Your task to perform on an android device: Open the phone app and click the voicemail tab. Image 0: 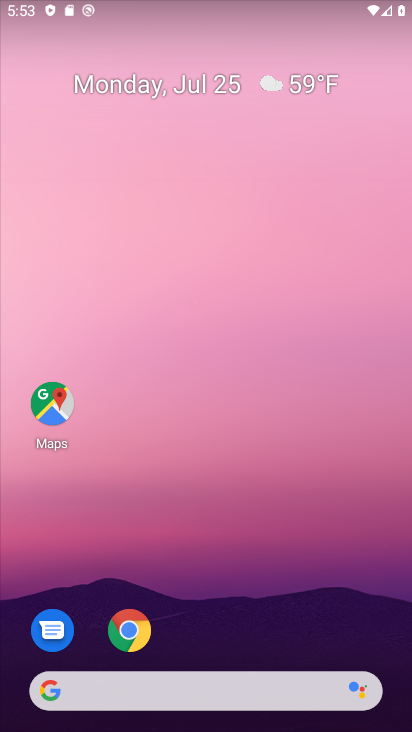
Step 0: drag from (171, 638) to (122, 19)
Your task to perform on an android device: Open the phone app and click the voicemail tab. Image 1: 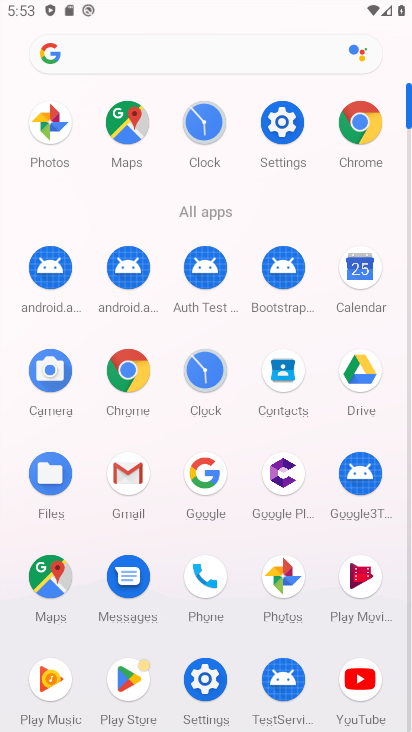
Step 1: click (203, 579)
Your task to perform on an android device: Open the phone app and click the voicemail tab. Image 2: 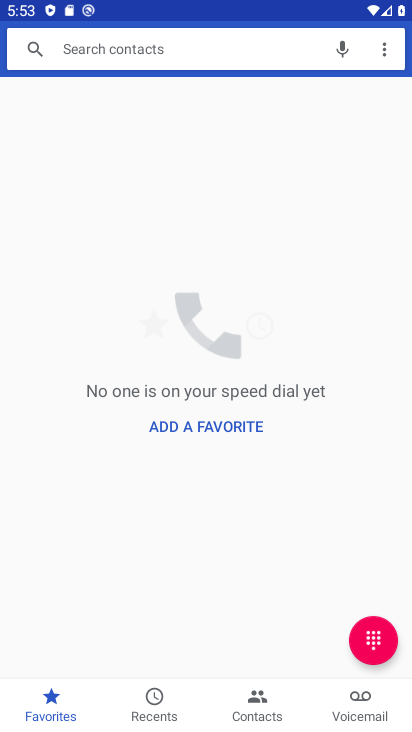
Step 2: click (356, 709)
Your task to perform on an android device: Open the phone app and click the voicemail tab. Image 3: 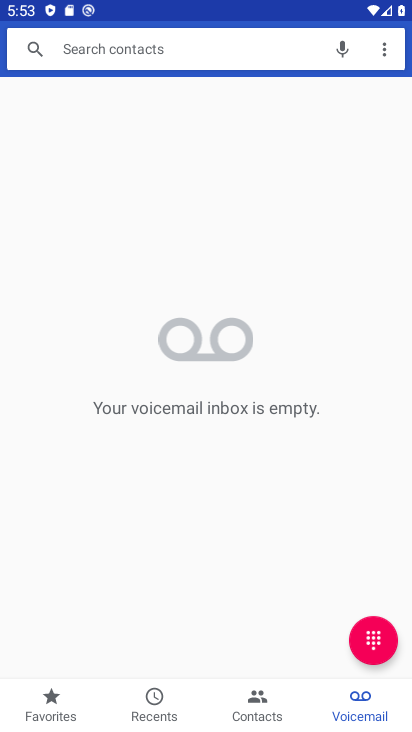
Step 3: task complete